Your task to perform on an android device: Do I have any events tomorrow? Image 0: 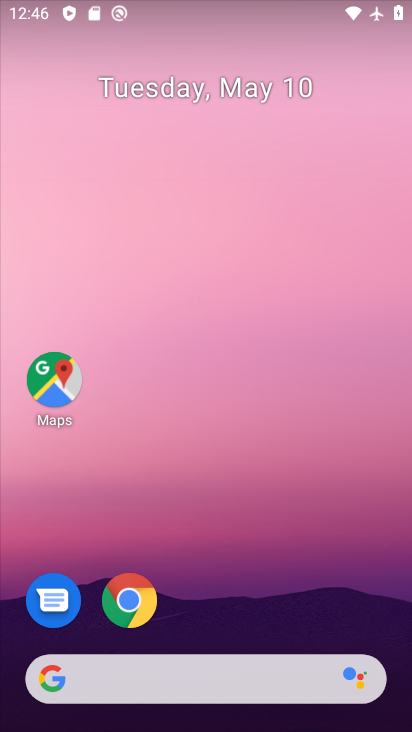
Step 0: drag from (276, 614) to (249, 354)
Your task to perform on an android device: Do I have any events tomorrow? Image 1: 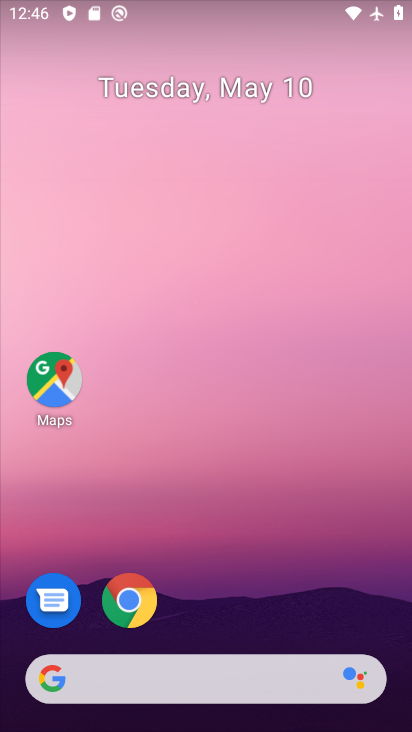
Step 1: drag from (236, 609) to (233, 119)
Your task to perform on an android device: Do I have any events tomorrow? Image 2: 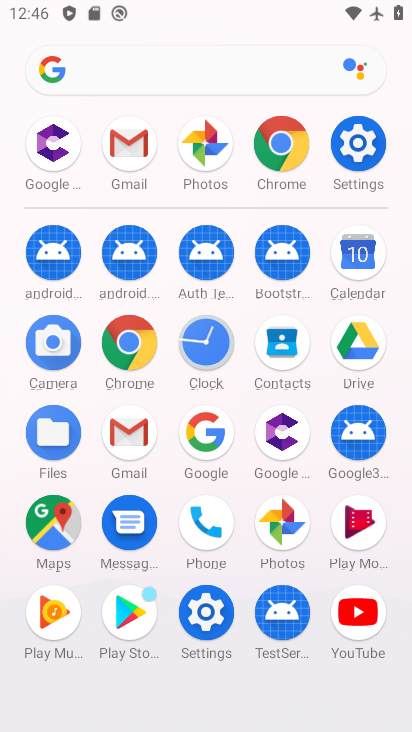
Step 2: click (348, 274)
Your task to perform on an android device: Do I have any events tomorrow? Image 3: 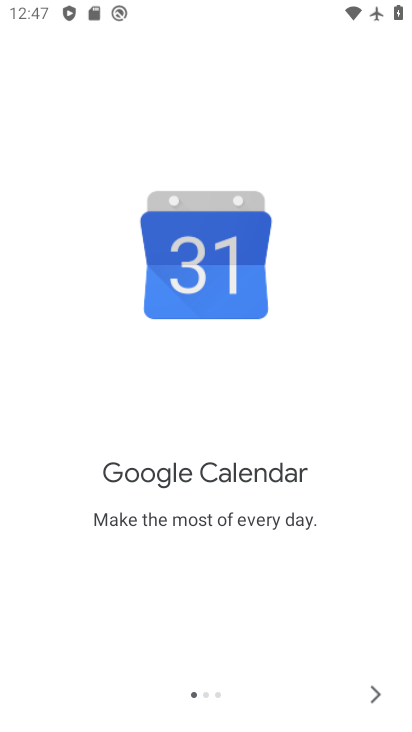
Step 3: click (374, 687)
Your task to perform on an android device: Do I have any events tomorrow? Image 4: 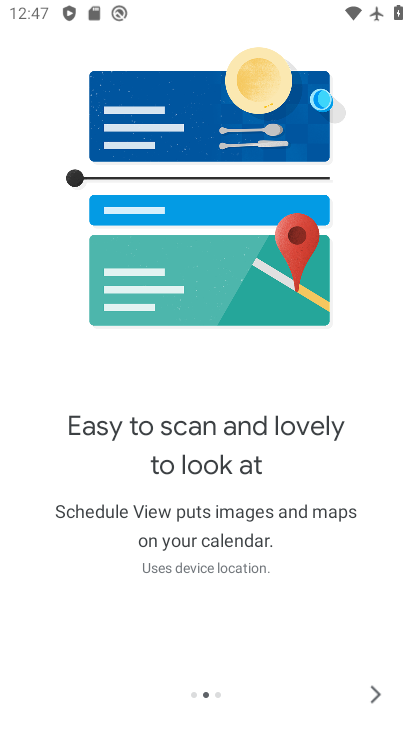
Step 4: click (370, 686)
Your task to perform on an android device: Do I have any events tomorrow? Image 5: 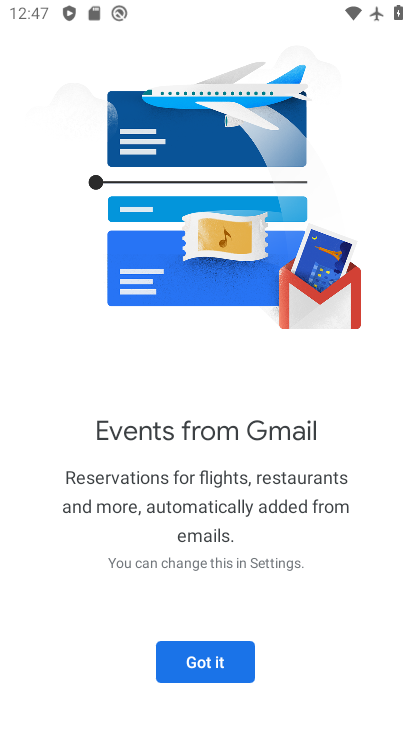
Step 5: click (381, 692)
Your task to perform on an android device: Do I have any events tomorrow? Image 6: 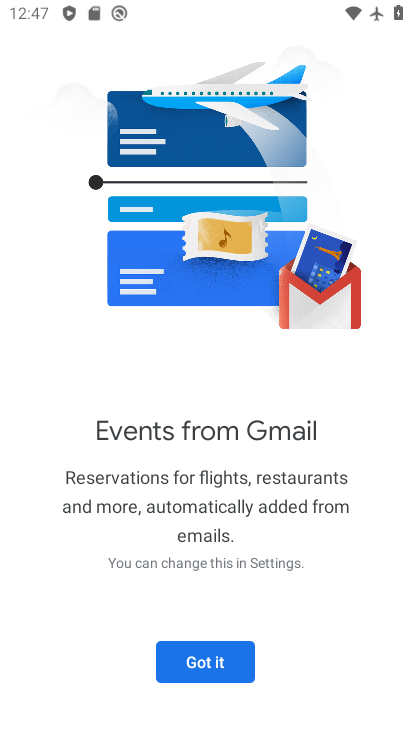
Step 6: click (240, 654)
Your task to perform on an android device: Do I have any events tomorrow? Image 7: 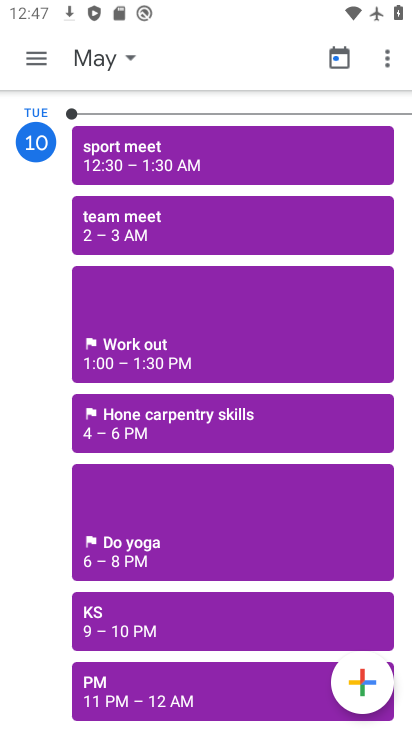
Step 7: task complete